Your task to perform on an android device: change the clock style Image 0: 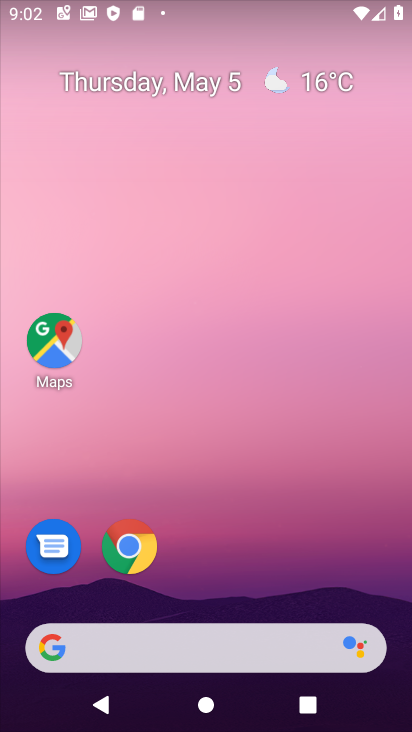
Step 0: drag from (237, 585) to (208, 74)
Your task to perform on an android device: change the clock style Image 1: 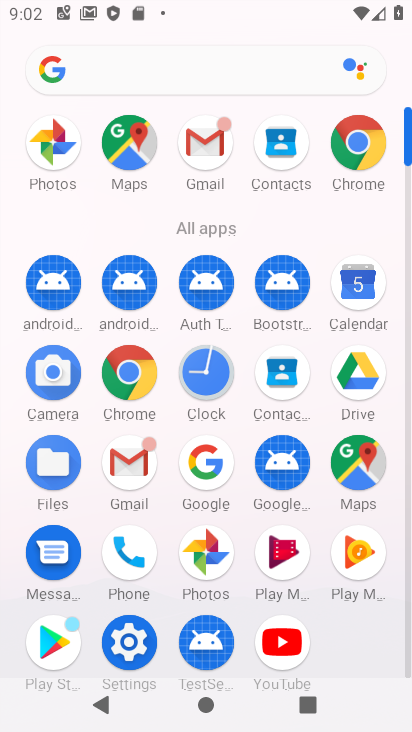
Step 1: click (208, 369)
Your task to perform on an android device: change the clock style Image 2: 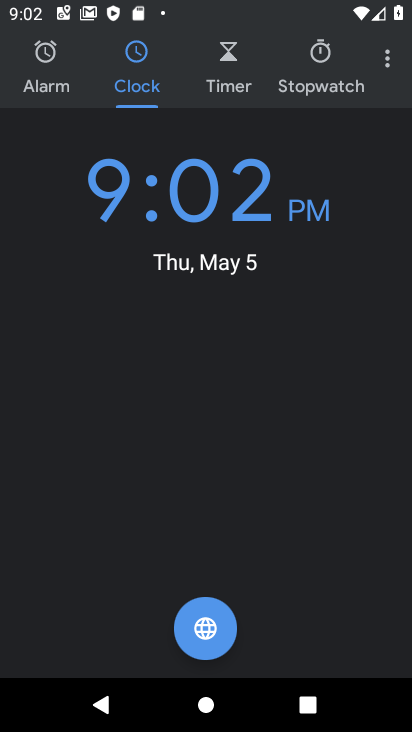
Step 2: click (388, 64)
Your task to perform on an android device: change the clock style Image 3: 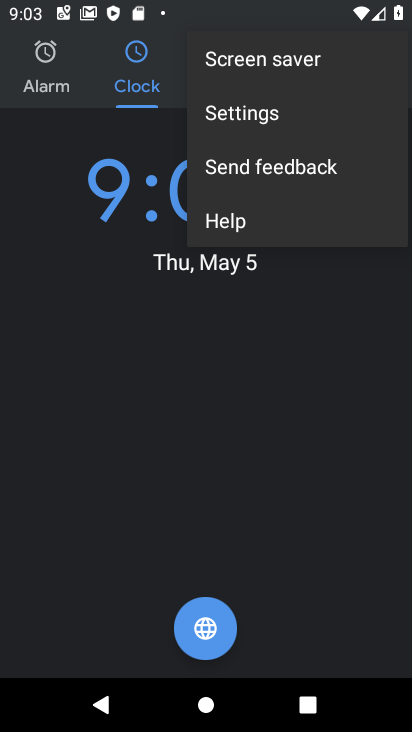
Step 3: click (337, 106)
Your task to perform on an android device: change the clock style Image 4: 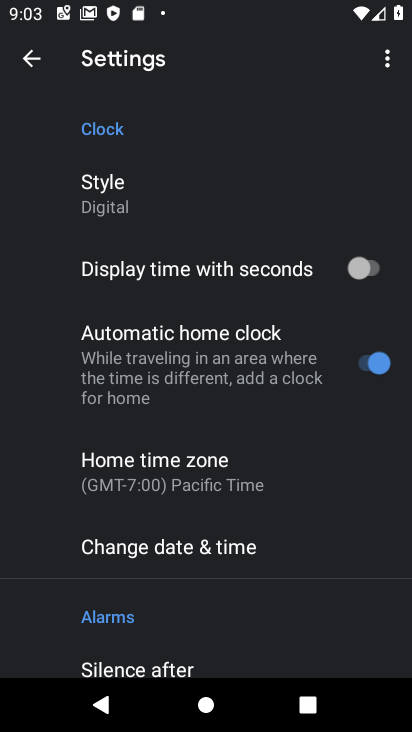
Step 4: click (122, 204)
Your task to perform on an android device: change the clock style Image 5: 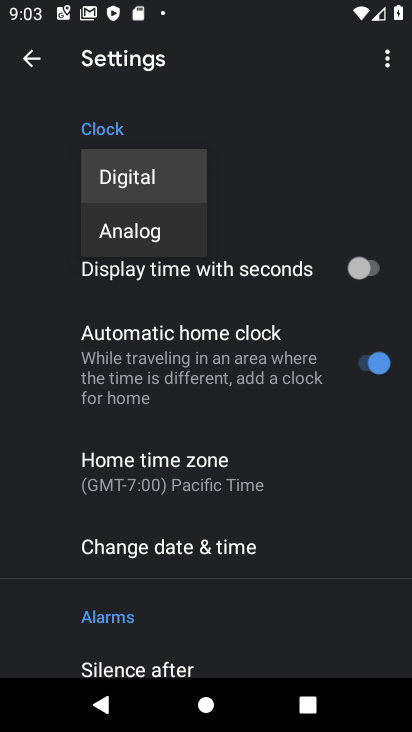
Step 5: click (114, 226)
Your task to perform on an android device: change the clock style Image 6: 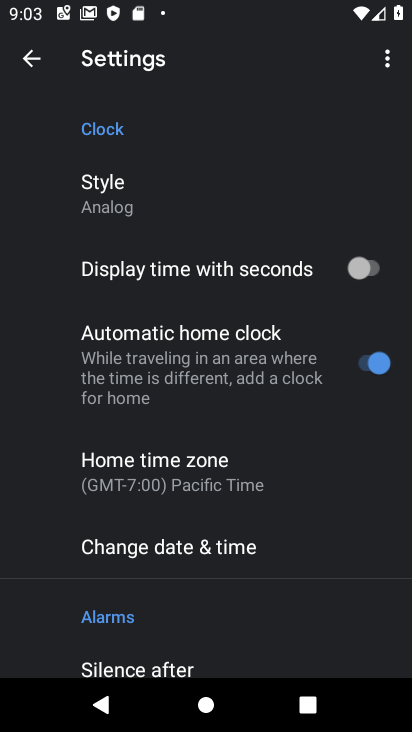
Step 6: task complete